Your task to perform on an android device: open a new tab in the chrome app Image 0: 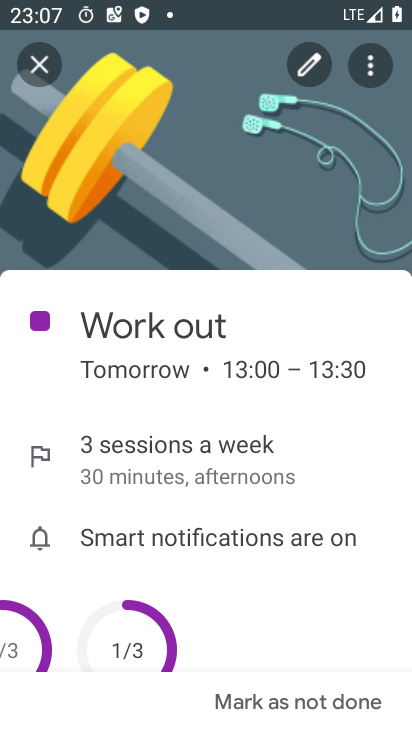
Step 0: press home button
Your task to perform on an android device: open a new tab in the chrome app Image 1: 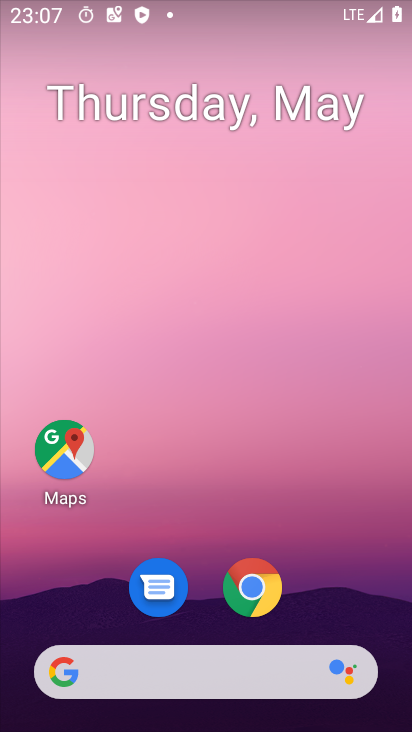
Step 1: click (248, 591)
Your task to perform on an android device: open a new tab in the chrome app Image 2: 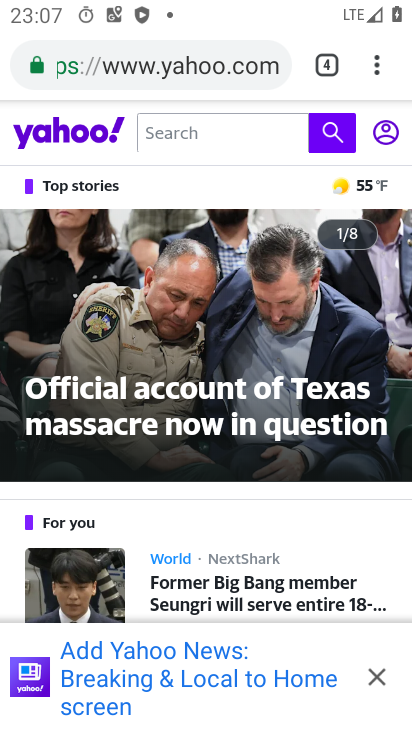
Step 2: click (377, 66)
Your task to perform on an android device: open a new tab in the chrome app Image 3: 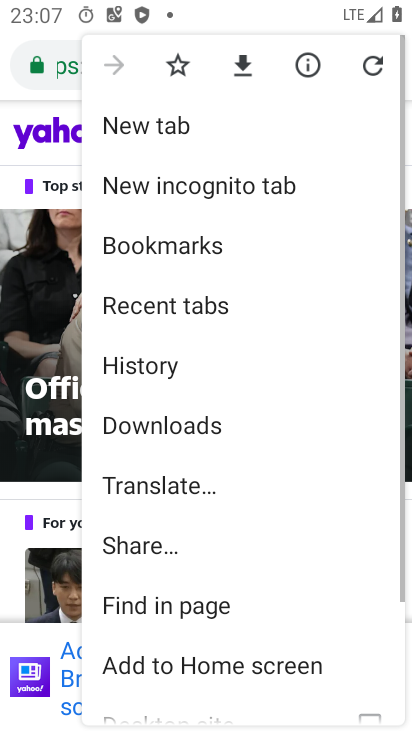
Step 3: click (123, 126)
Your task to perform on an android device: open a new tab in the chrome app Image 4: 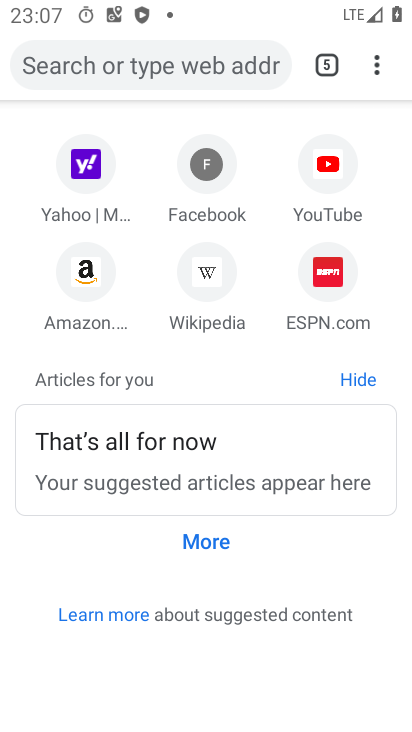
Step 4: task complete